Your task to perform on an android device: Go to Amazon Image 0: 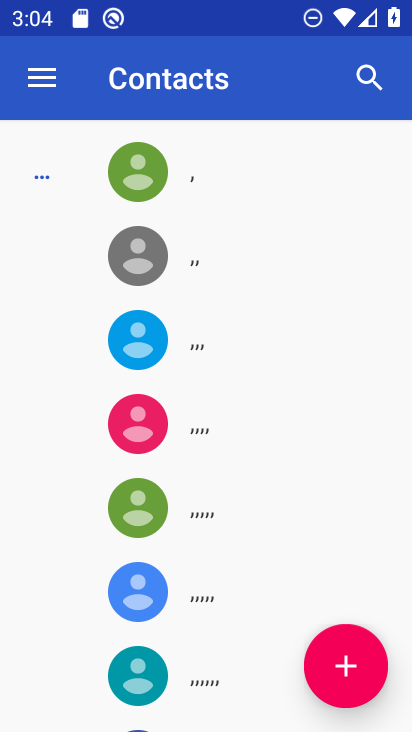
Step 0: press home button
Your task to perform on an android device: Go to Amazon Image 1: 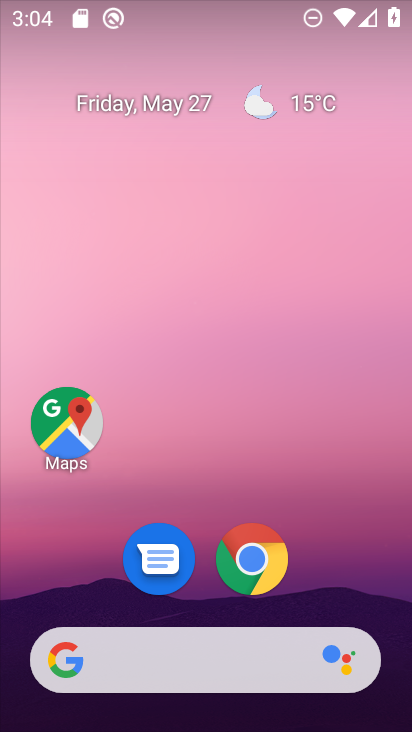
Step 1: drag from (361, 643) to (409, 398)
Your task to perform on an android device: Go to Amazon Image 2: 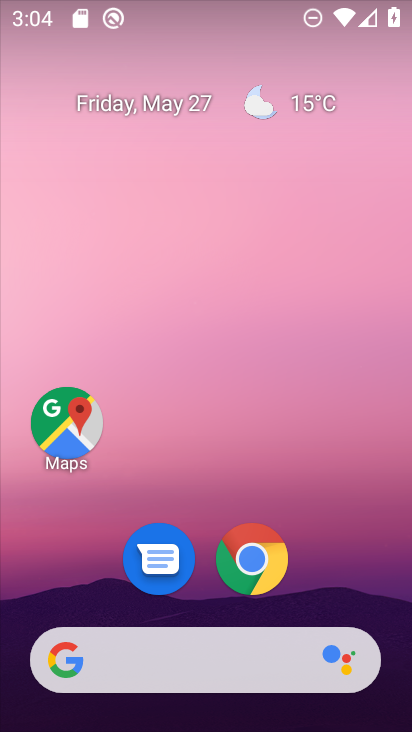
Step 2: drag from (234, 598) to (291, 2)
Your task to perform on an android device: Go to Amazon Image 3: 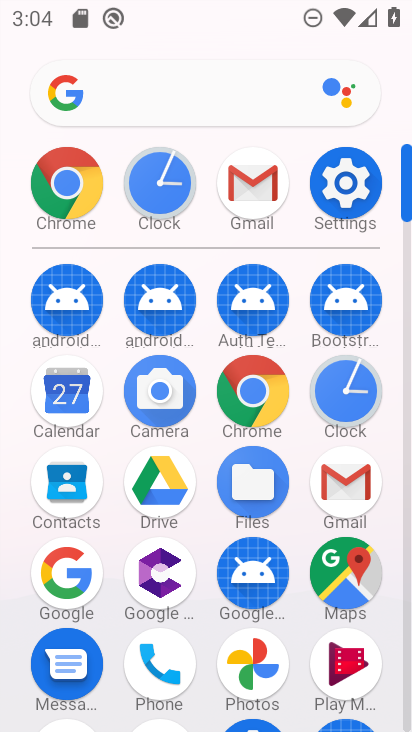
Step 3: click (271, 388)
Your task to perform on an android device: Go to Amazon Image 4: 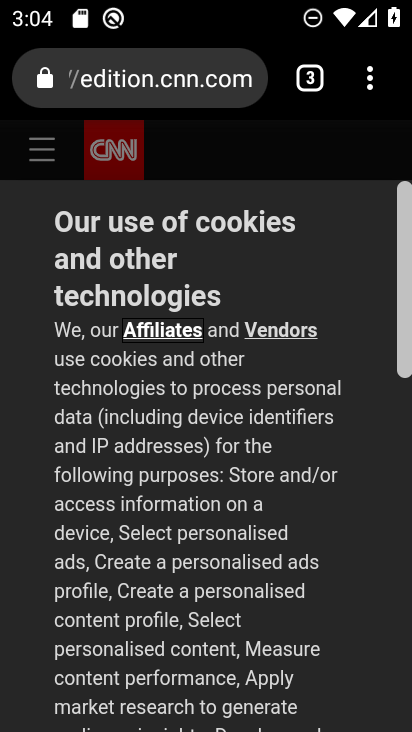
Step 4: drag from (372, 77) to (194, 155)
Your task to perform on an android device: Go to Amazon Image 5: 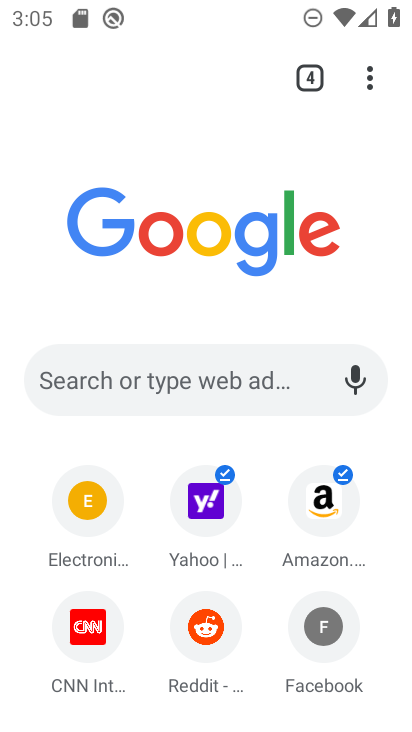
Step 5: click (326, 491)
Your task to perform on an android device: Go to Amazon Image 6: 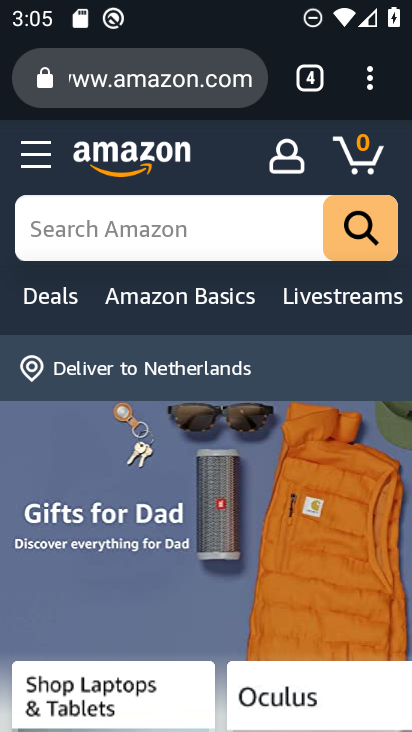
Step 6: task complete